Your task to perform on an android device: refresh tabs in the chrome app Image 0: 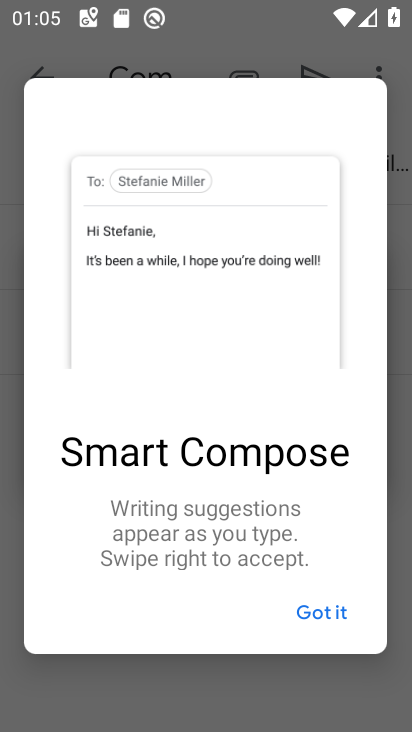
Step 0: press home button
Your task to perform on an android device: refresh tabs in the chrome app Image 1: 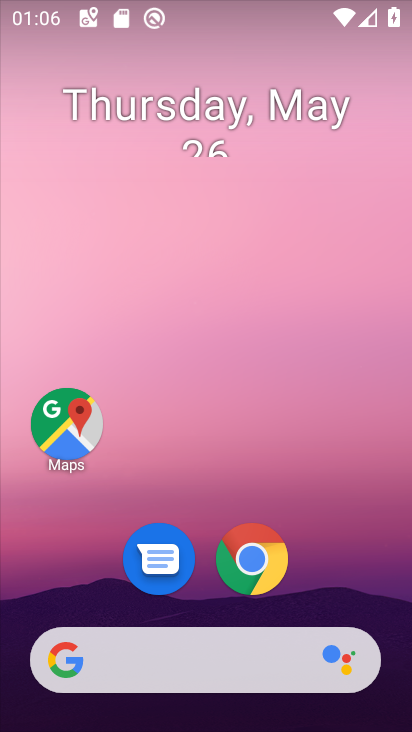
Step 1: click (253, 573)
Your task to perform on an android device: refresh tabs in the chrome app Image 2: 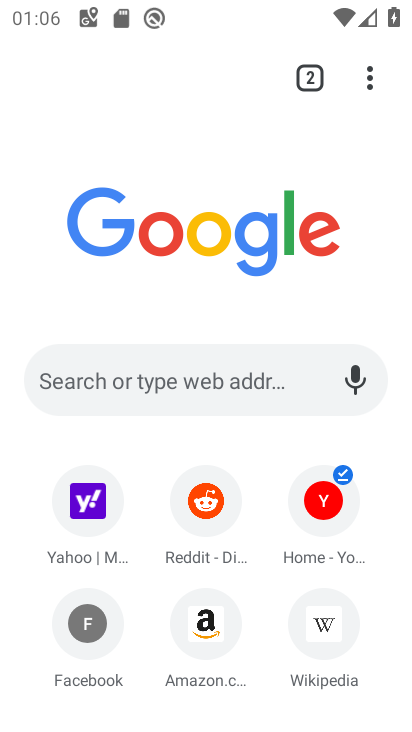
Step 2: click (365, 75)
Your task to perform on an android device: refresh tabs in the chrome app Image 3: 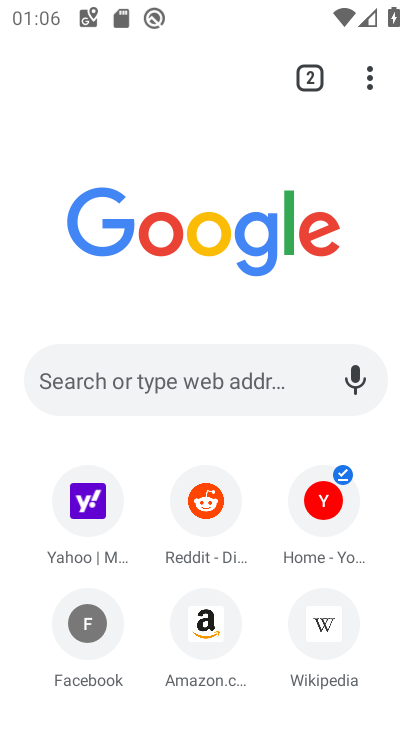
Step 3: click (367, 79)
Your task to perform on an android device: refresh tabs in the chrome app Image 4: 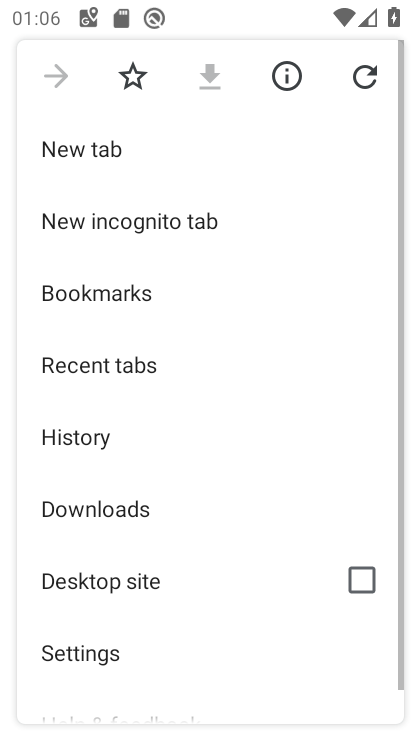
Step 4: click (367, 79)
Your task to perform on an android device: refresh tabs in the chrome app Image 5: 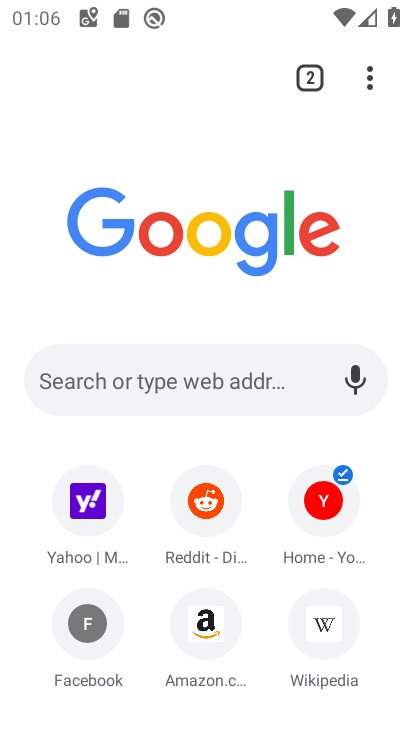
Step 5: task complete